Your task to perform on an android device: Open the calendar app, open the side menu, and click the "Day" option Image 0: 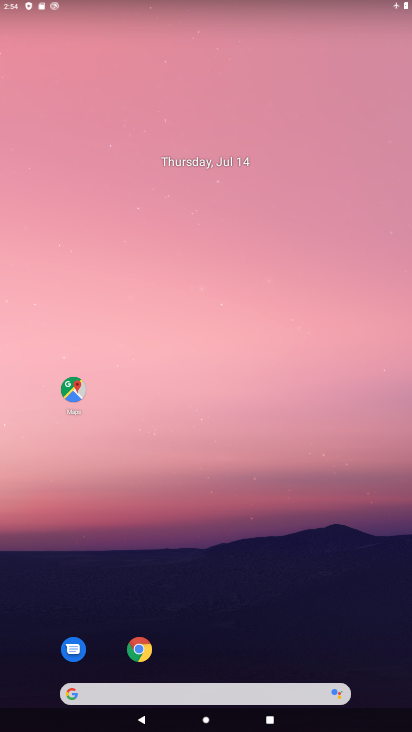
Step 0: drag from (210, 658) to (180, 2)
Your task to perform on an android device: Open the calendar app, open the side menu, and click the "Day" option Image 1: 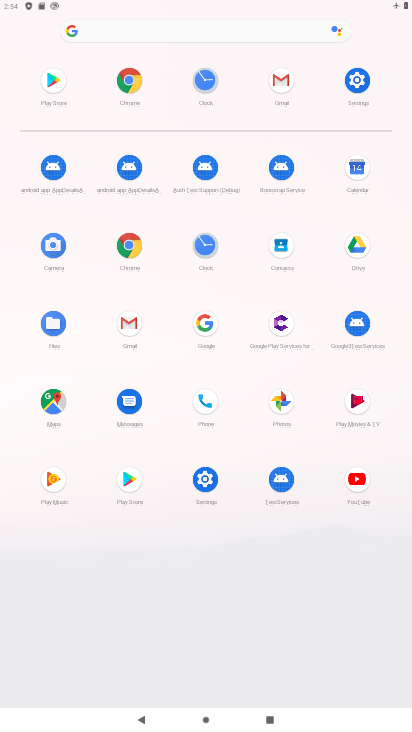
Step 1: click (351, 173)
Your task to perform on an android device: Open the calendar app, open the side menu, and click the "Day" option Image 2: 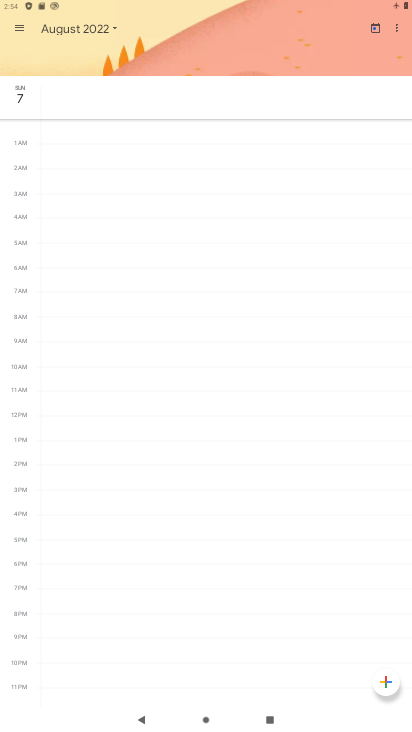
Step 2: click (21, 24)
Your task to perform on an android device: Open the calendar app, open the side menu, and click the "Day" option Image 3: 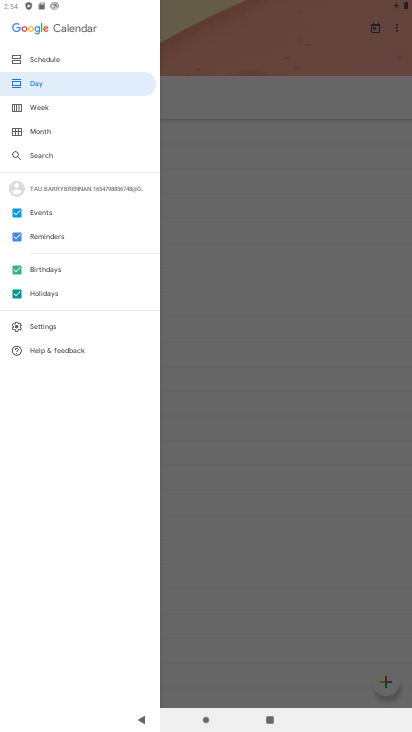
Step 3: click (81, 81)
Your task to perform on an android device: Open the calendar app, open the side menu, and click the "Day" option Image 4: 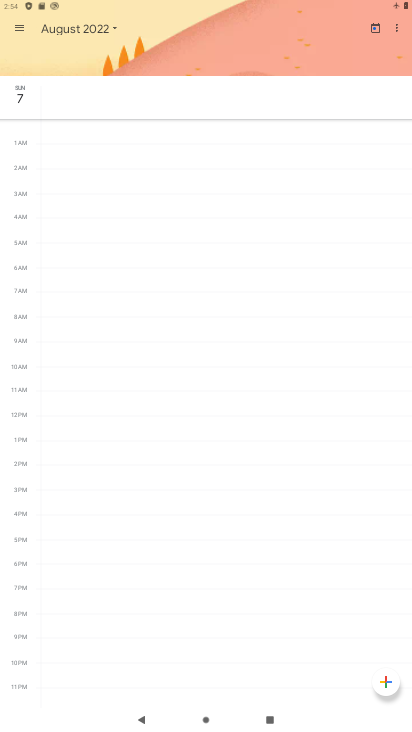
Step 4: task complete